Your task to perform on an android device: Open the calendar app, open the side menu, and click the "Day" option Image 0: 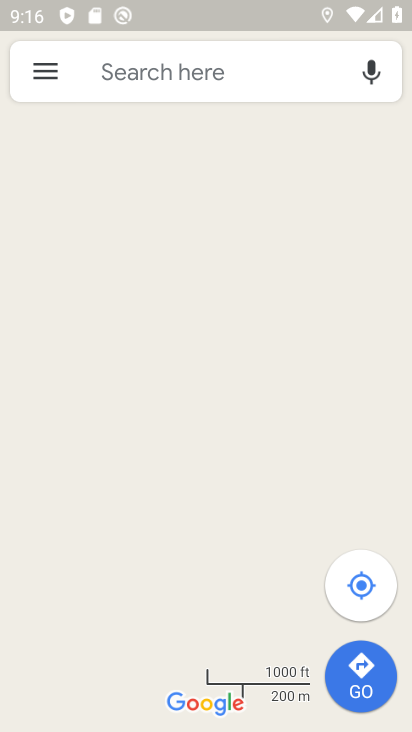
Step 0: press home button
Your task to perform on an android device: Open the calendar app, open the side menu, and click the "Day" option Image 1: 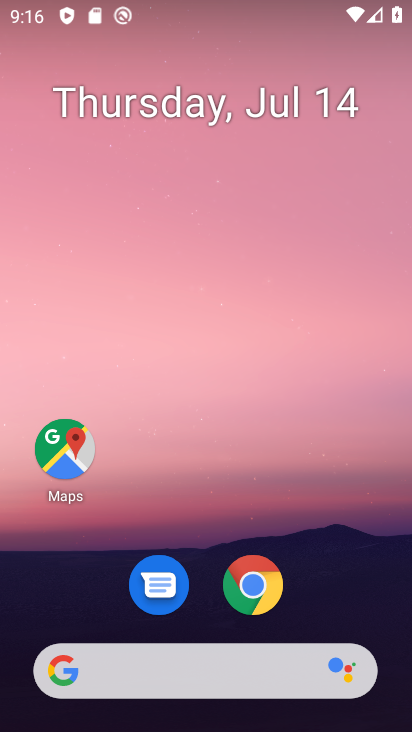
Step 1: drag from (272, 642) to (167, 13)
Your task to perform on an android device: Open the calendar app, open the side menu, and click the "Day" option Image 2: 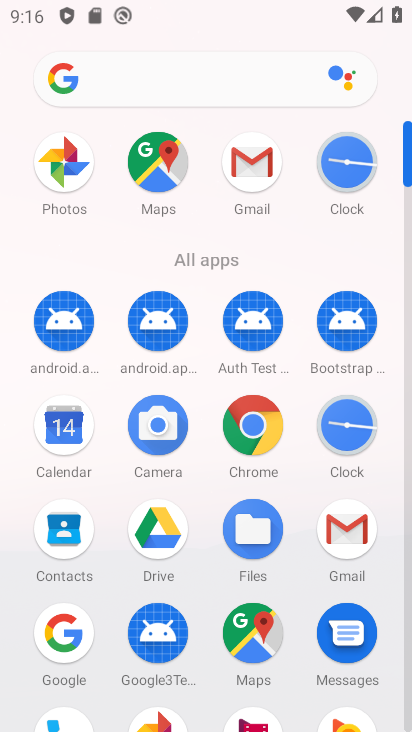
Step 2: click (62, 418)
Your task to perform on an android device: Open the calendar app, open the side menu, and click the "Day" option Image 3: 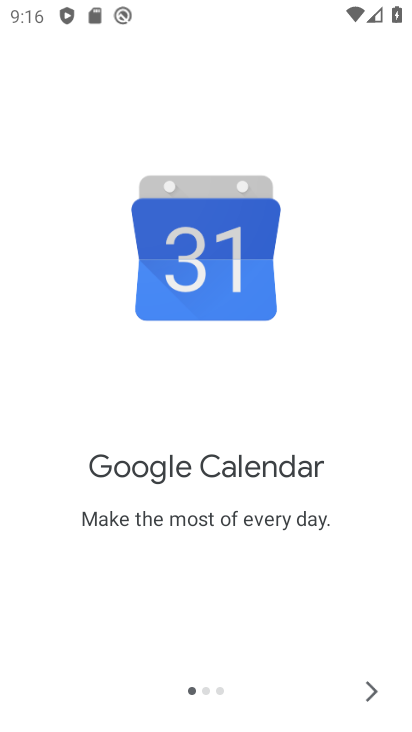
Step 3: click (374, 685)
Your task to perform on an android device: Open the calendar app, open the side menu, and click the "Day" option Image 4: 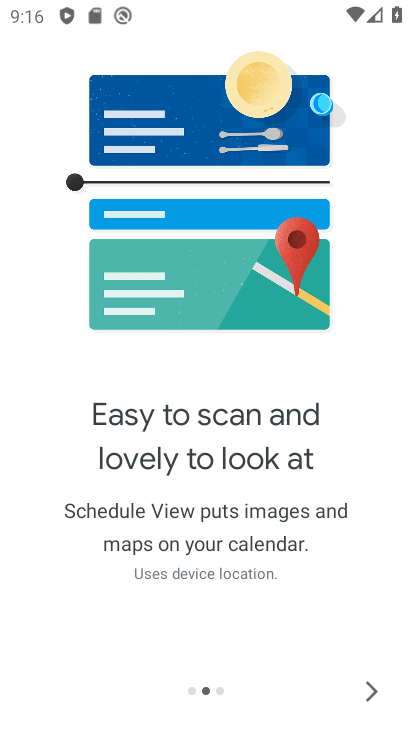
Step 4: click (374, 685)
Your task to perform on an android device: Open the calendar app, open the side menu, and click the "Day" option Image 5: 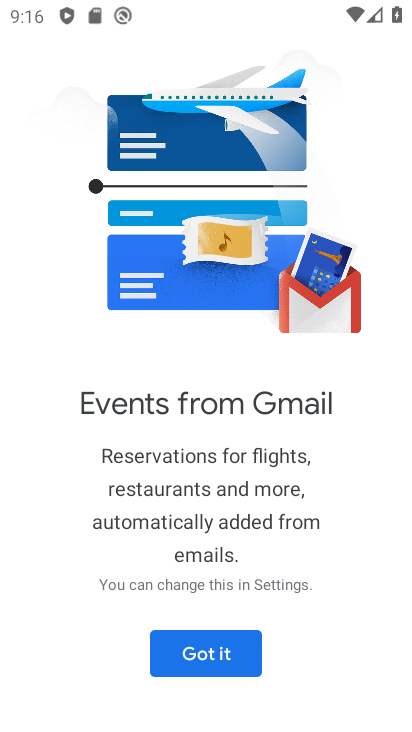
Step 5: click (216, 647)
Your task to perform on an android device: Open the calendar app, open the side menu, and click the "Day" option Image 6: 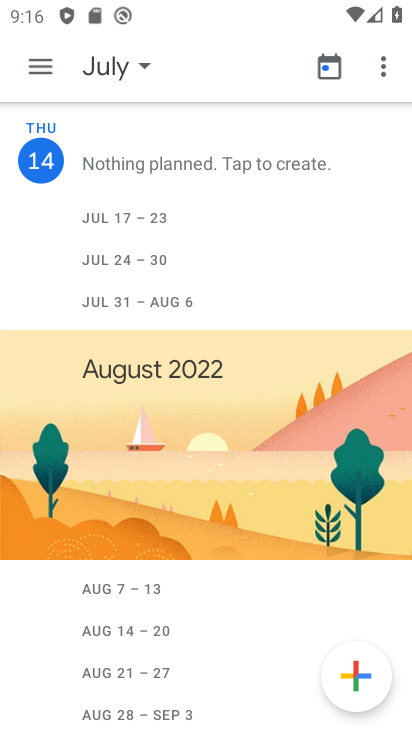
Step 6: click (41, 64)
Your task to perform on an android device: Open the calendar app, open the side menu, and click the "Day" option Image 7: 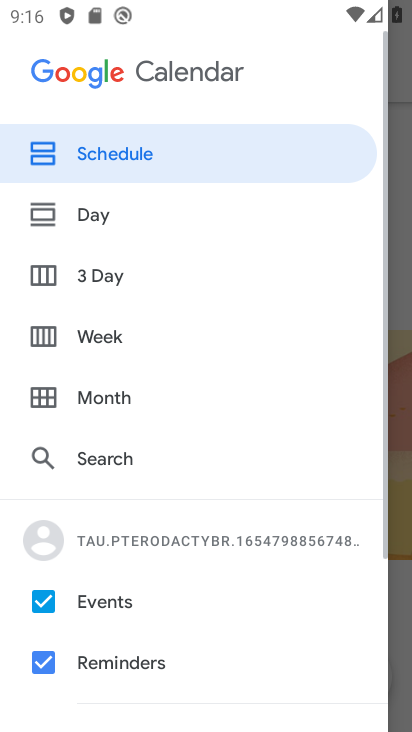
Step 7: click (105, 210)
Your task to perform on an android device: Open the calendar app, open the side menu, and click the "Day" option Image 8: 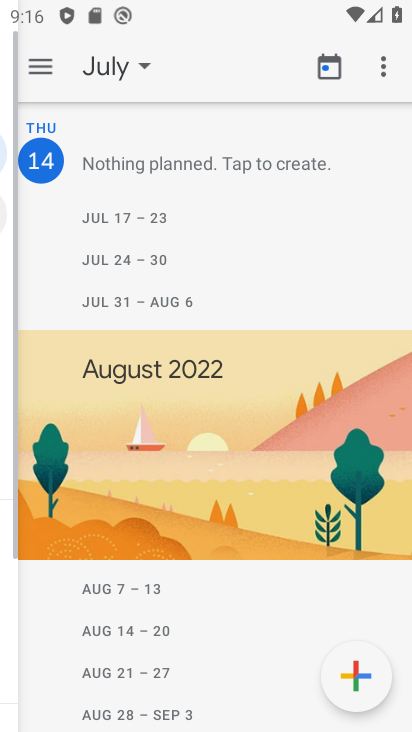
Step 8: click (105, 210)
Your task to perform on an android device: Open the calendar app, open the side menu, and click the "Day" option Image 9: 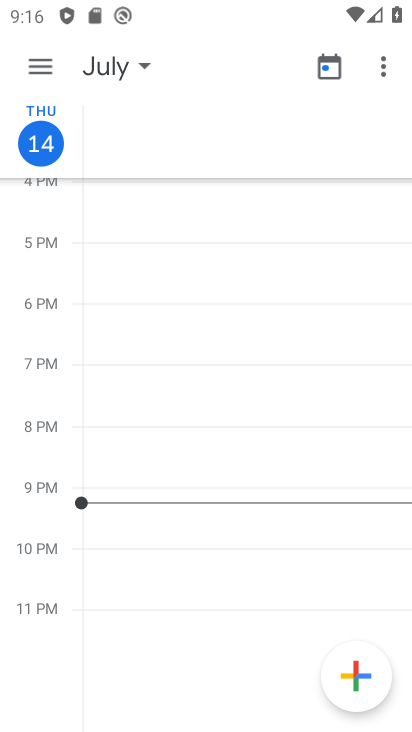
Step 9: click (40, 64)
Your task to perform on an android device: Open the calendar app, open the side menu, and click the "Day" option Image 10: 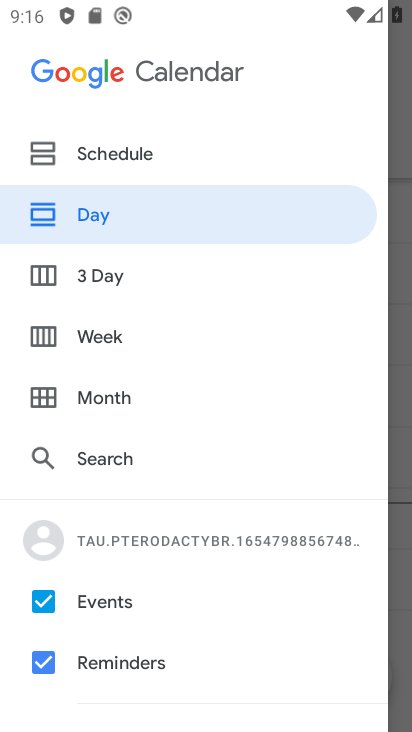
Step 10: task complete